Your task to perform on an android device: change the clock display to show seconds Image 0: 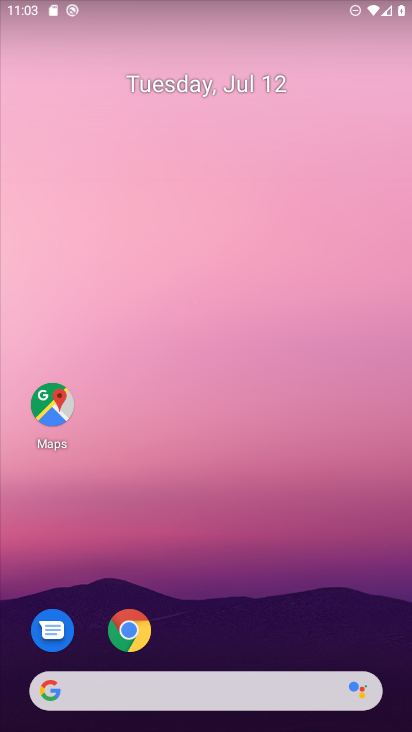
Step 0: drag from (262, 358) to (261, 63)
Your task to perform on an android device: change the clock display to show seconds Image 1: 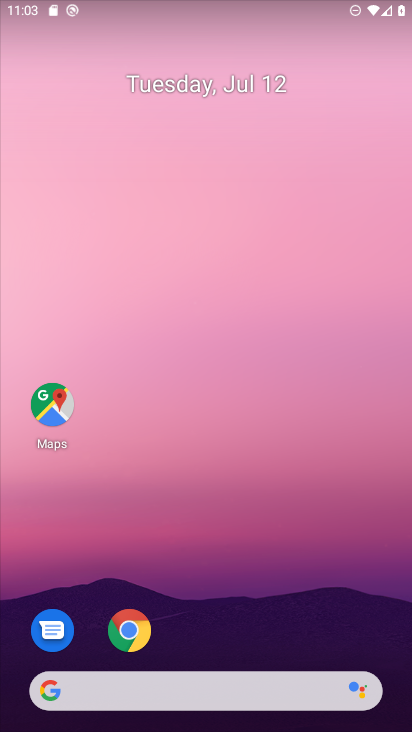
Step 1: drag from (243, 584) to (227, 12)
Your task to perform on an android device: change the clock display to show seconds Image 2: 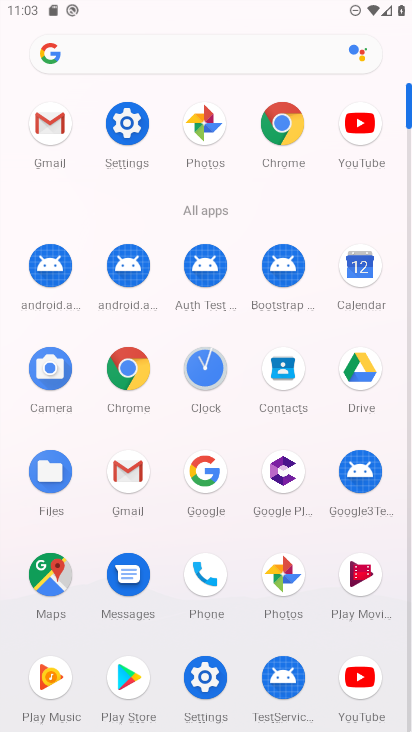
Step 2: click (211, 367)
Your task to perform on an android device: change the clock display to show seconds Image 3: 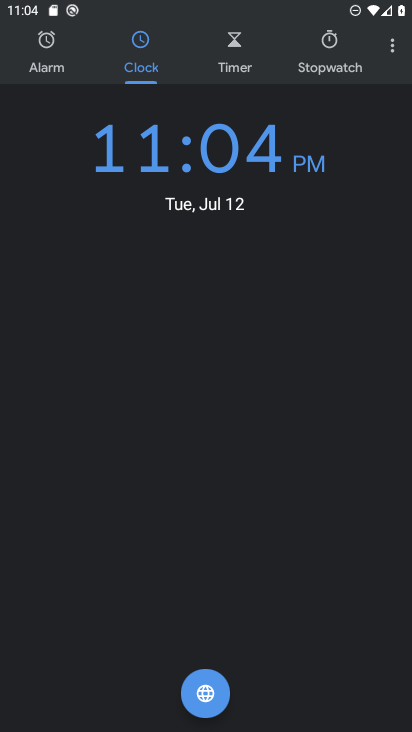
Step 3: click (392, 58)
Your task to perform on an android device: change the clock display to show seconds Image 4: 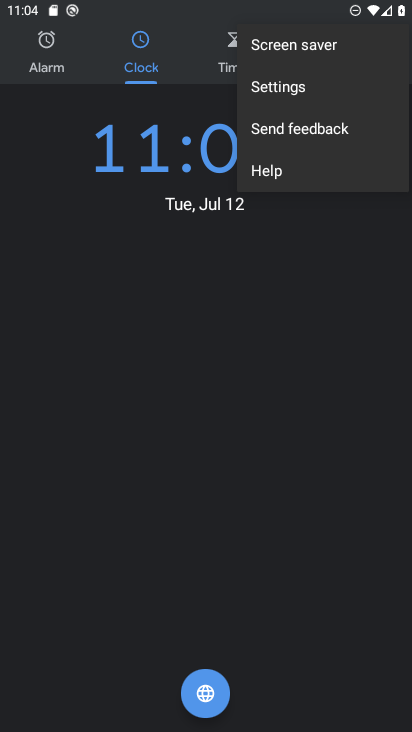
Step 4: click (300, 79)
Your task to perform on an android device: change the clock display to show seconds Image 5: 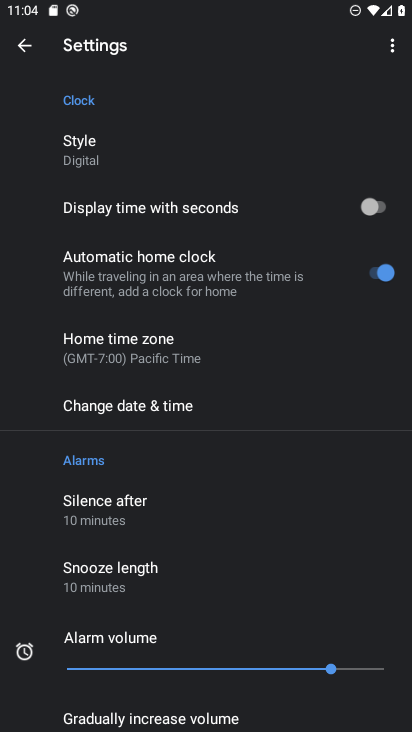
Step 5: click (381, 207)
Your task to perform on an android device: change the clock display to show seconds Image 6: 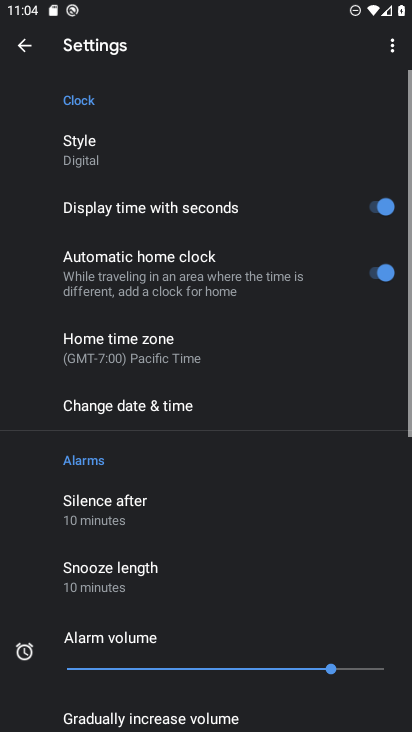
Step 6: task complete